Your task to perform on an android device: turn off location Image 0: 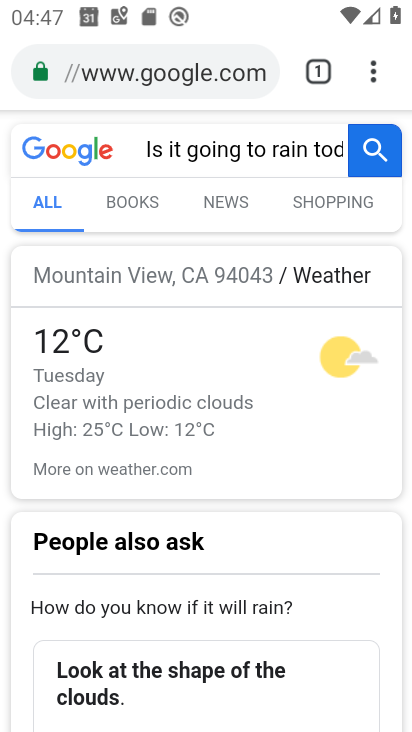
Step 0: task complete